Your task to perform on an android device: clear all cookies in the chrome app Image 0: 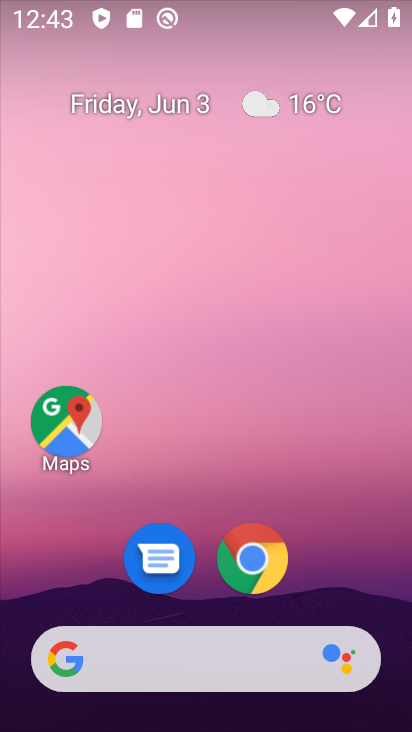
Step 0: drag from (371, 578) to (372, 230)
Your task to perform on an android device: clear all cookies in the chrome app Image 1: 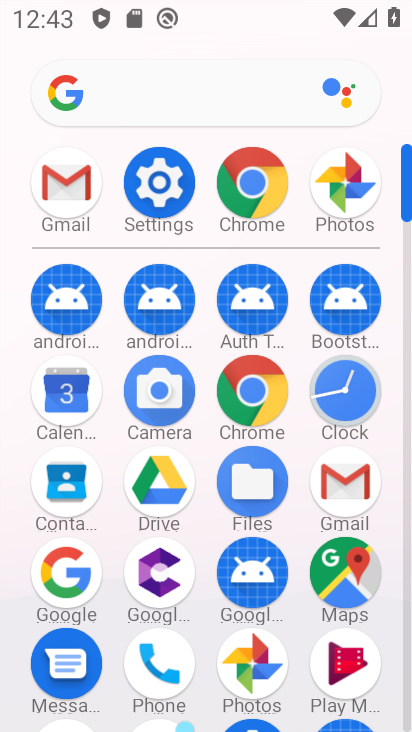
Step 1: click (255, 406)
Your task to perform on an android device: clear all cookies in the chrome app Image 2: 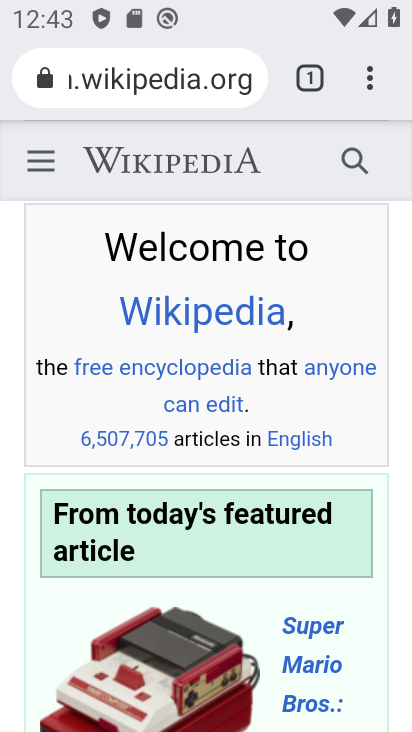
Step 2: click (367, 84)
Your task to perform on an android device: clear all cookies in the chrome app Image 3: 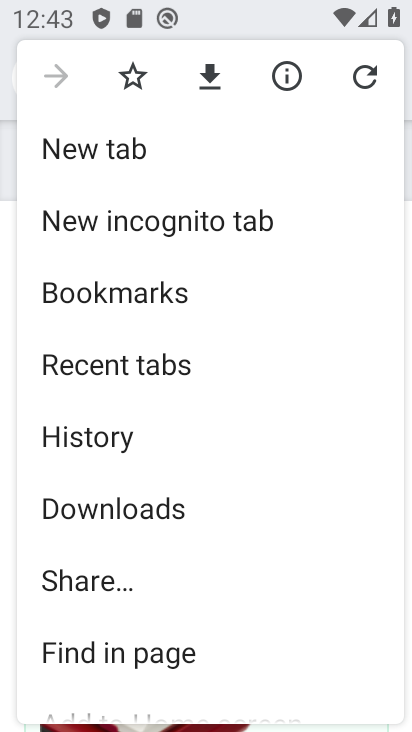
Step 3: drag from (293, 461) to (313, 389)
Your task to perform on an android device: clear all cookies in the chrome app Image 4: 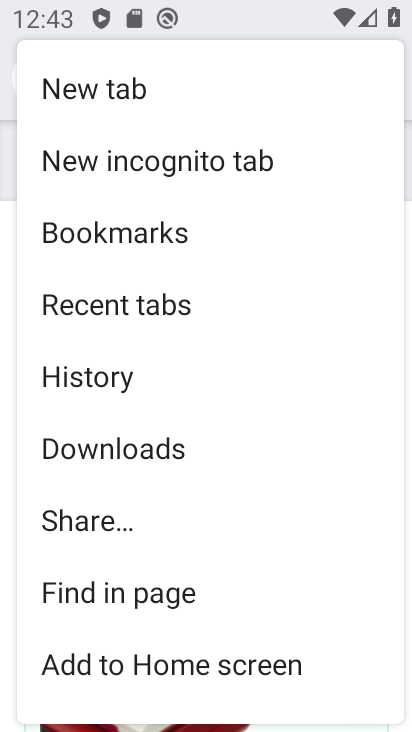
Step 4: drag from (309, 554) to (295, 447)
Your task to perform on an android device: clear all cookies in the chrome app Image 5: 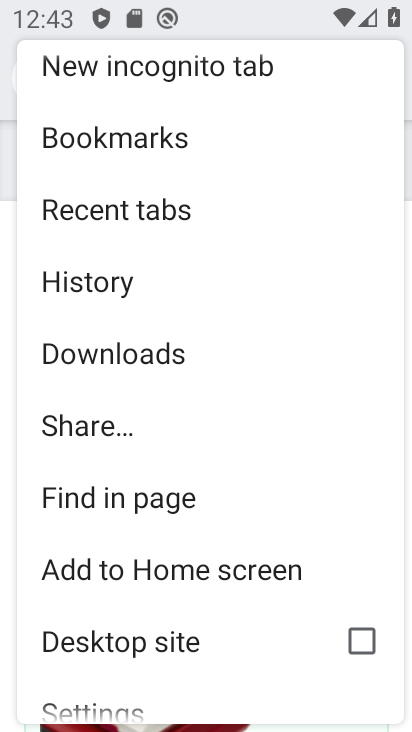
Step 5: drag from (296, 622) to (297, 493)
Your task to perform on an android device: clear all cookies in the chrome app Image 6: 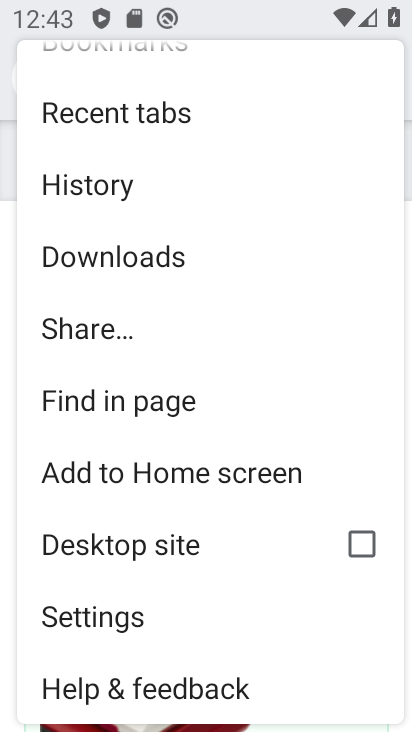
Step 6: click (131, 625)
Your task to perform on an android device: clear all cookies in the chrome app Image 7: 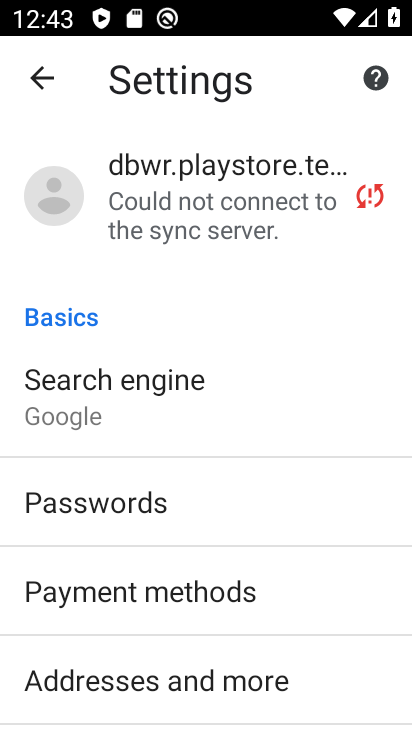
Step 7: drag from (312, 581) to (323, 482)
Your task to perform on an android device: clear all cookies in the chrome app Image 8: 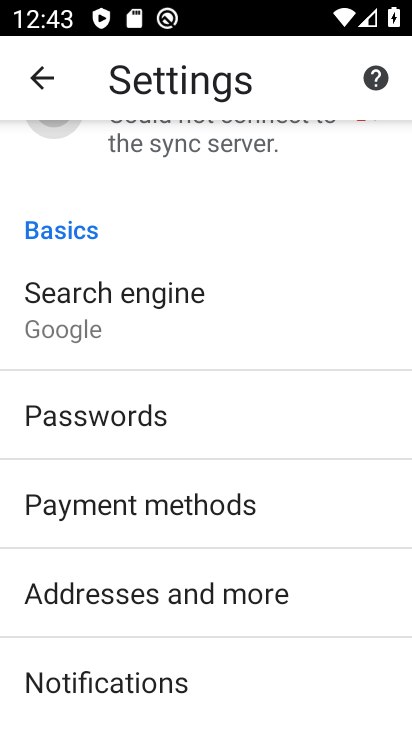
Step 8: drag from (352, 626) to (345, 489)
Your task to perform on an android device: clear all cookies in the chrome app Image 9: 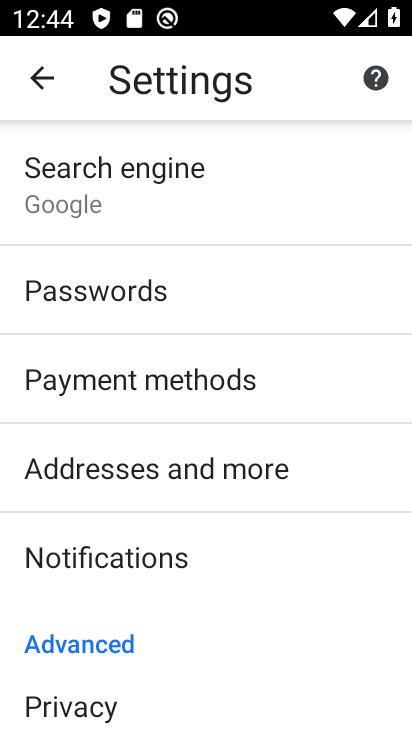
Step 9: drag from (313, 615) to (313, 439)
Your task to perform on an android device: clear all cookies in the chrome app Image 10: 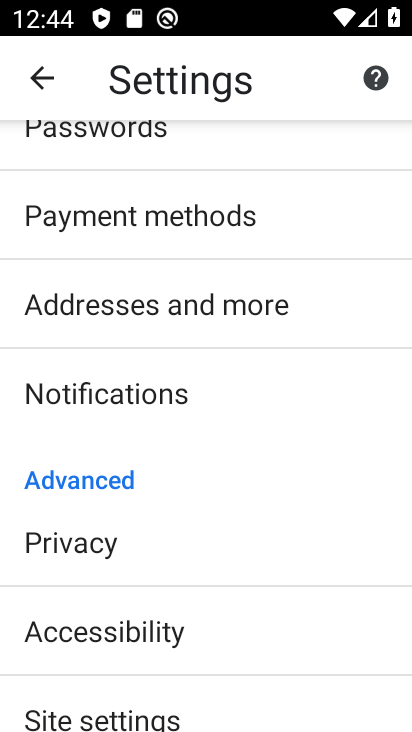
Step 10: click (214, 563)
Your task to perform on an android device: clear all cookies in the chrome app Image 11: 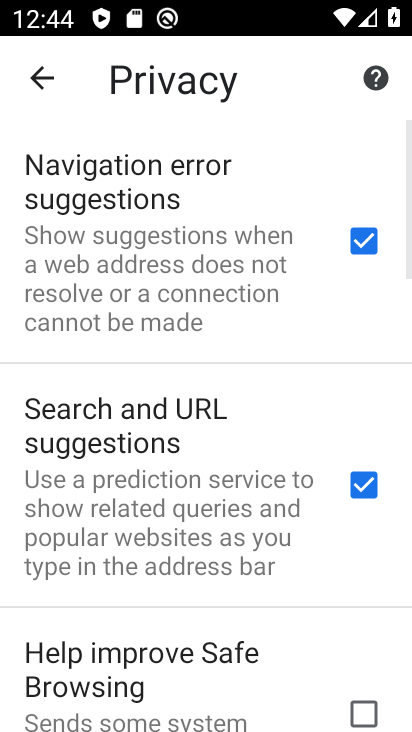
Step 11: drag from (280, 612) to (282, 488)
Your task to perform on an android device: clear all cookies in the chrome app Image 12: 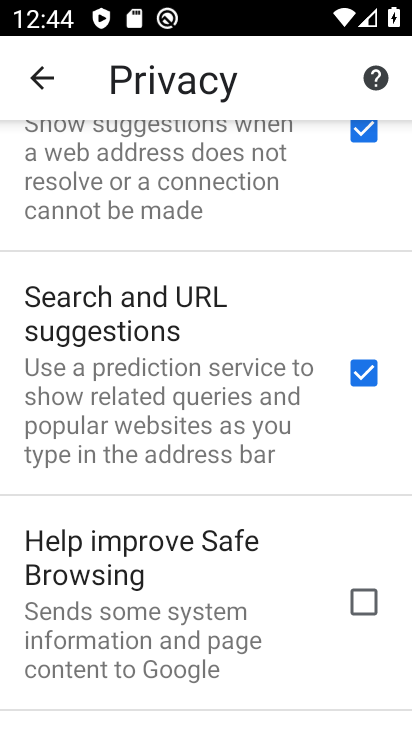
Step 12: drag from (278, 622) to (294, 466)
Your task to perform on an android device: clear all cookies in the chrome app Image 13: 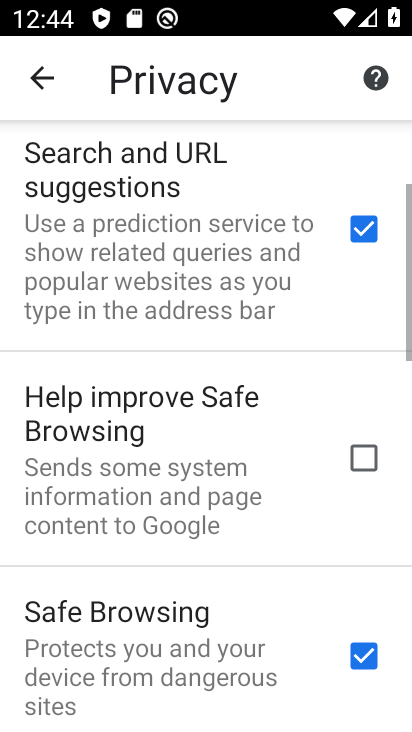
Step 13: drag from (292, 570) to (291, 413)
Your task to perform on an android device: clear all cookies in the chrome app Image 14: 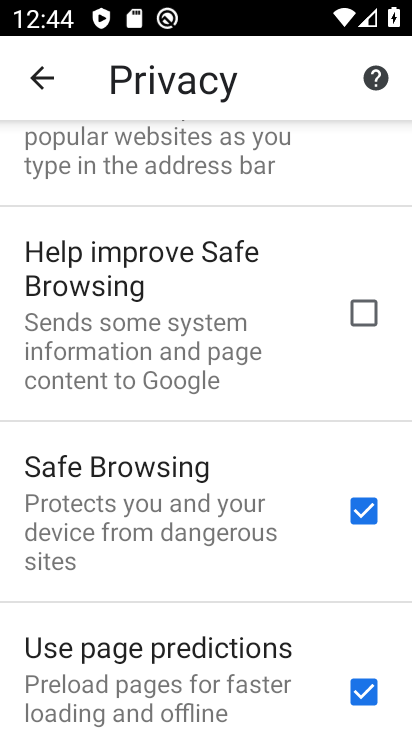
Step 14: drag from (273, 540) to (270, 377)
Your task to perform on an android device: clear all cookies in the chrome app Image 15: 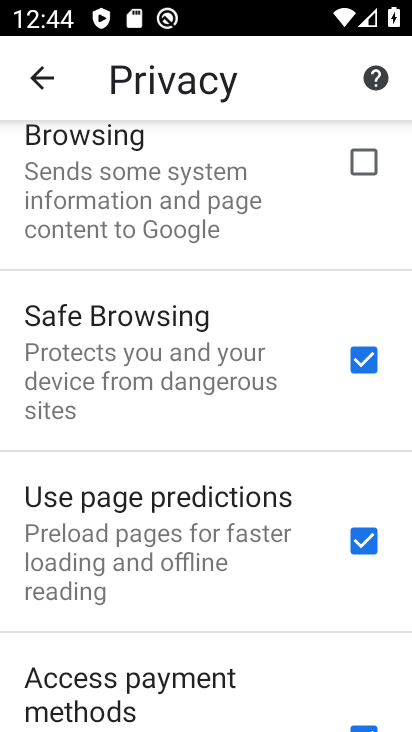
Step 15: drag from (272, 586) to (278, 398)
Your task to perform on an android device: clear all cookies in the chrome app Image 16: 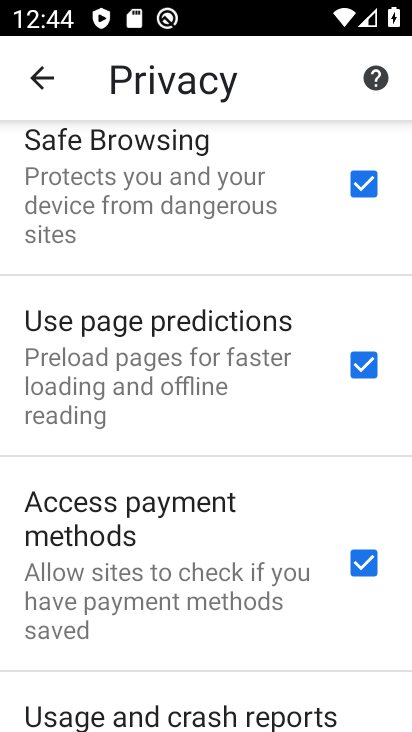
Step 16: drag from (267, 623) to (286, 435)
Your task to perform on an android device: clear all cookies in the chrome app Image 17: 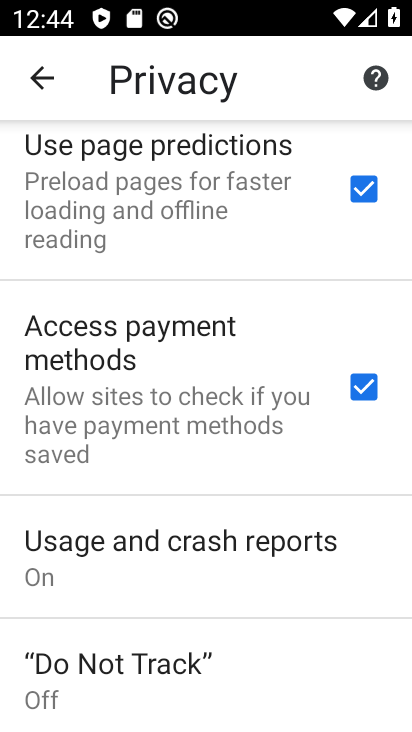
Step 17: drag from (272, 649) to (266, 336)
Your task to perform on an android device: clear all cookies in the chrome app Image 18: 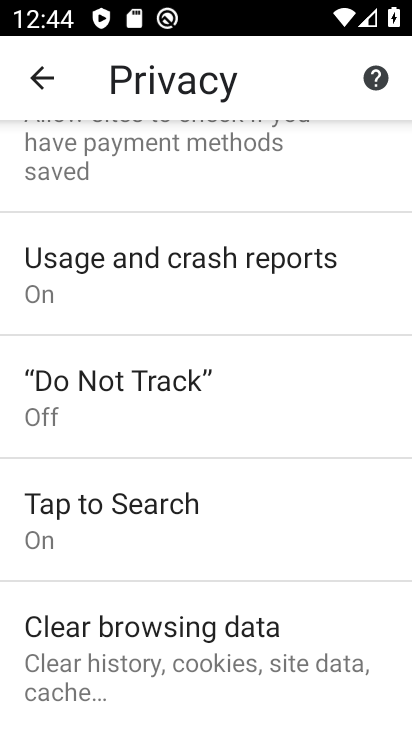
Step 18: click (184, 661)
Your task to perform on an android device: clear all cookies in the chrome app Image 19: 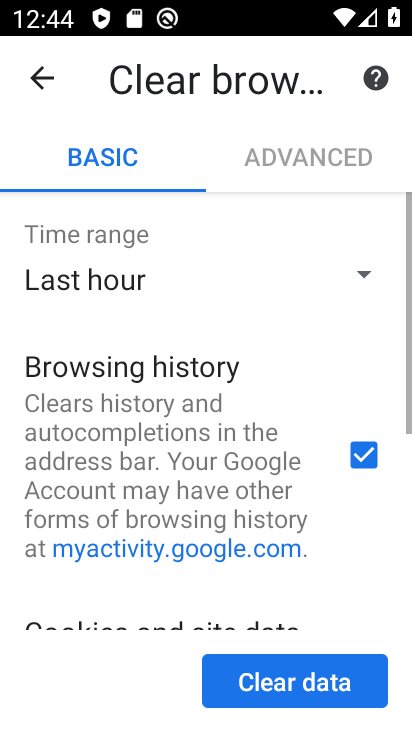
Step 19: click (253, 675)
Your task to perform on an android device: clear all cookies in the chrome app Image 20: 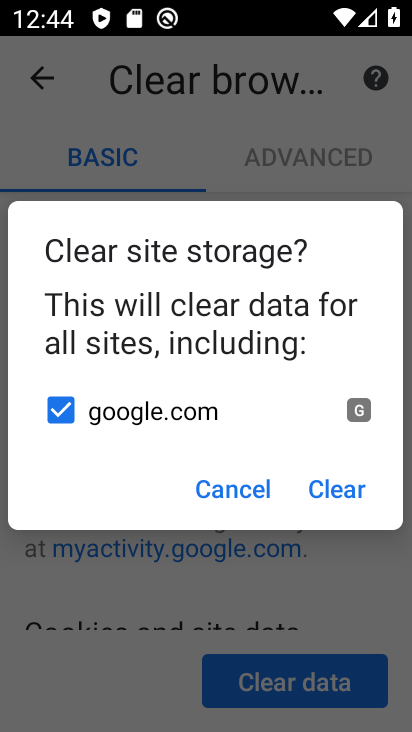
Step 20: click (310, 496)
Your task to perform on an android device: clear all cookies in the chrome app Image 21: 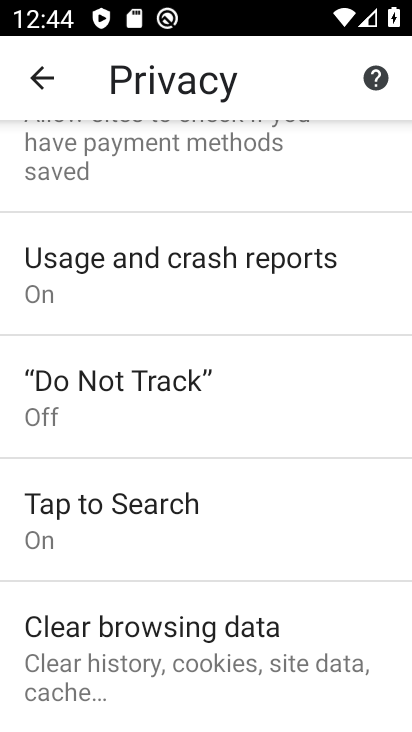
Step 21: task complete